Your task to perform on an android device: Open Chrome and go to the settings page Image 0: 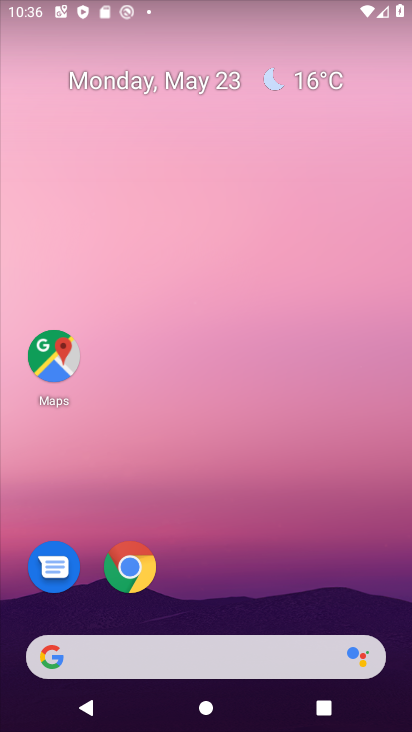
Step 0: drag from (192, 558) to (305, 111)
Your task to perform on an android device: Open Chrome and go to the settings page Image 1: 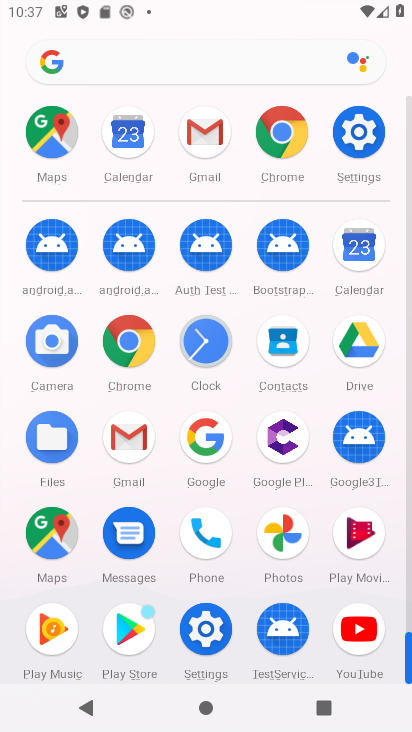
Step 1: click (121, 338)
Your task to perform on an android device: Open Chrome and go to the settings page Image 2: 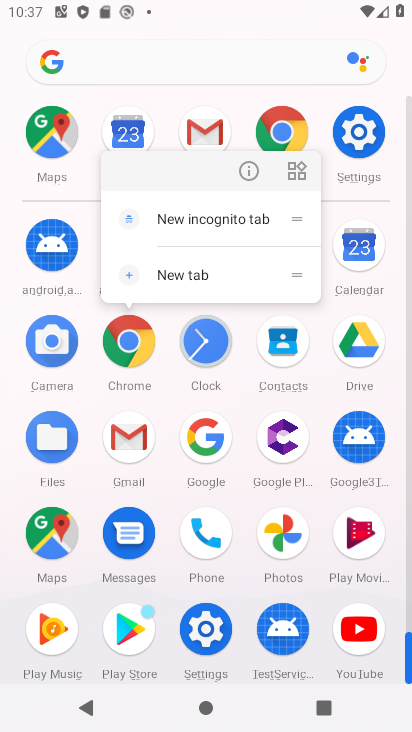
Step 2: click (248, 167)
Your task to perform on an android device: Open Chrome and go to the settings page Image 3: 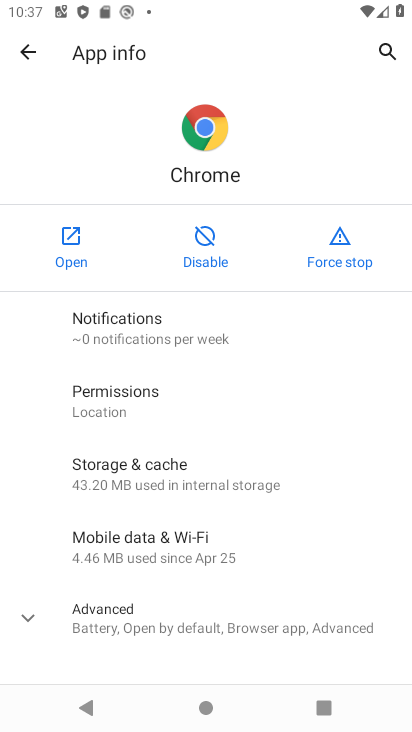
Step 3: click (82, 268)
Your task to perform on an android device: Open Chrome and go to the settings page Image 4: 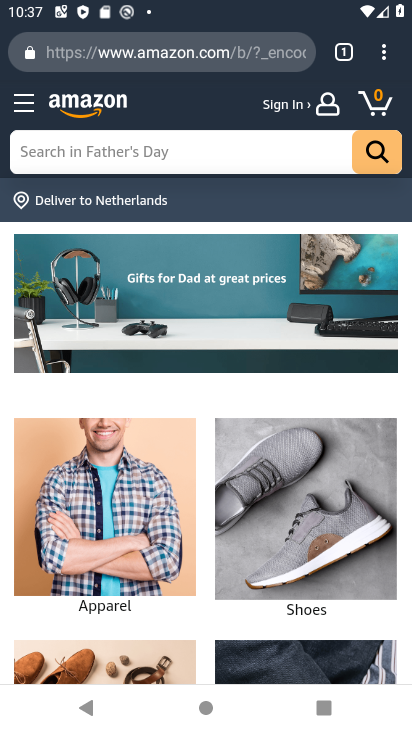
Step 4: click (378, 55)
Your task to perform on an android device: Open Chrome and go to the settings page Image 5: 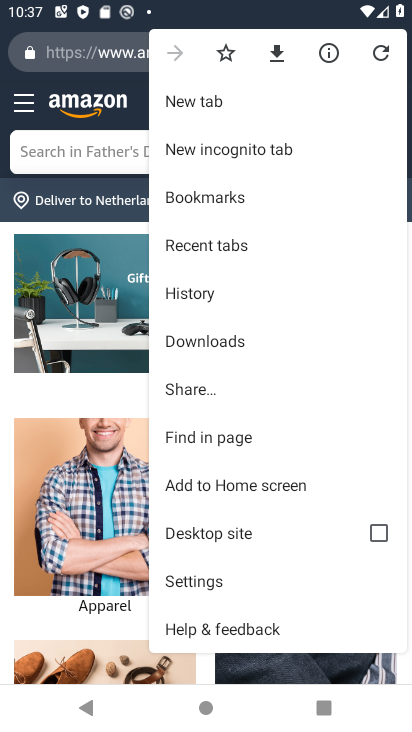
Step 5: click (210, 589)
Your task to perform on an android device: Open Chrome and go to the settings page Image 6: 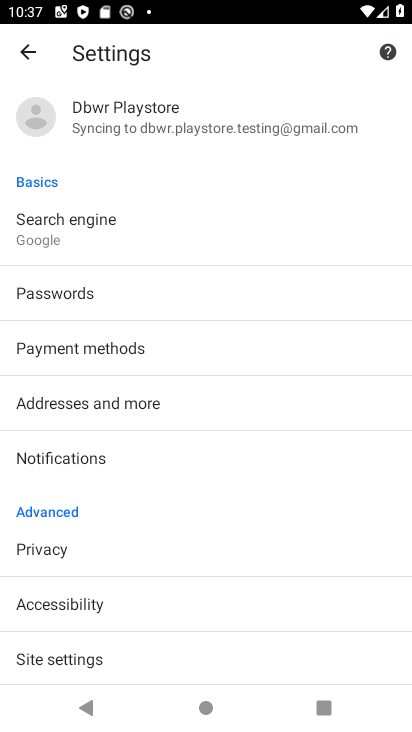
Step 6: task complete